Your task to perform on an android device: Go to privacy settings Image 0: 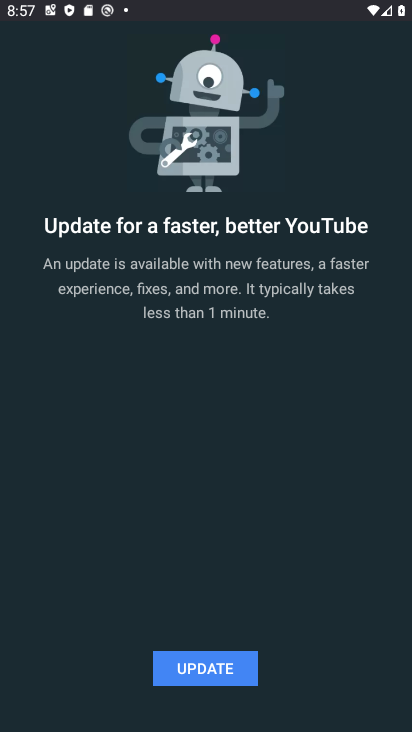
Step 0: press back button
Your task to perform on an android device: Go to privacy settings Image 1: 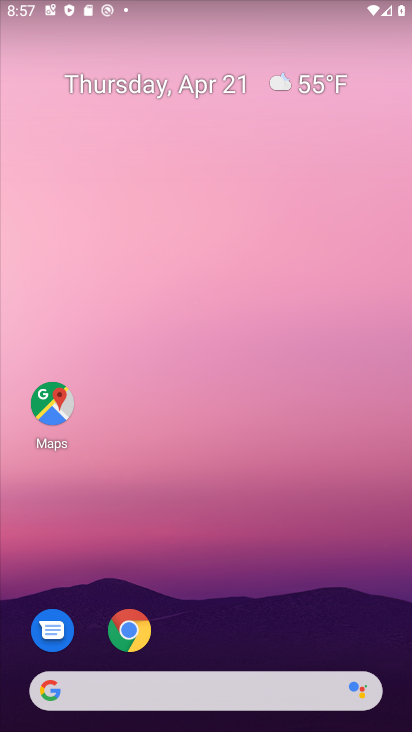
Step 1: click (133, 632)
Your task to perform on an android device: Go to privacy settings Image 2: 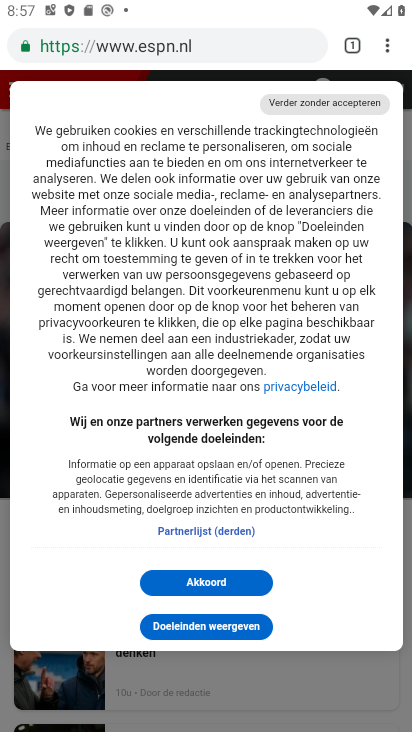
Step 2: click (390, 47)
Your task to perform on an android device: Go to privacy settings Image 3: 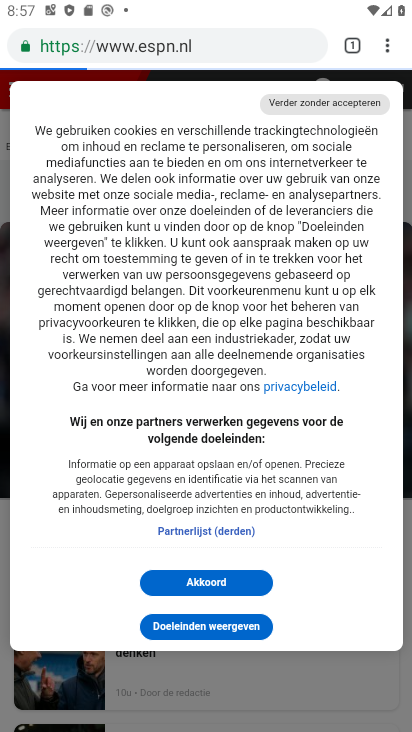
Step 3: drag from (390, 47) to (307, 594)
Your task to perform on an android device: Go to privacy settings Image 4: 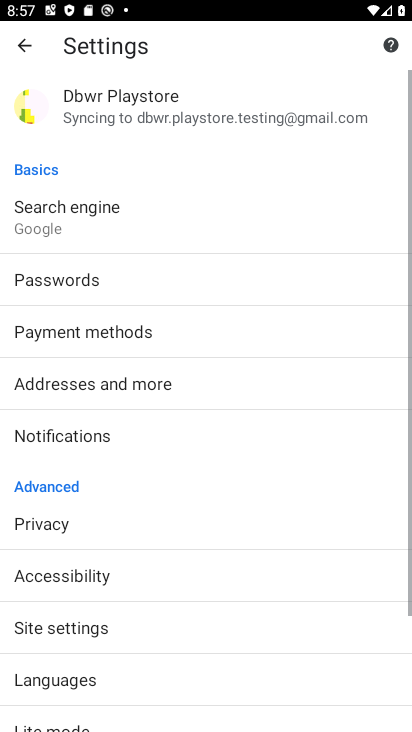
Step 4: drag from (95, 635) to (125, 370)
Your task to perform on an android device: Go to privacy settings Image 5: 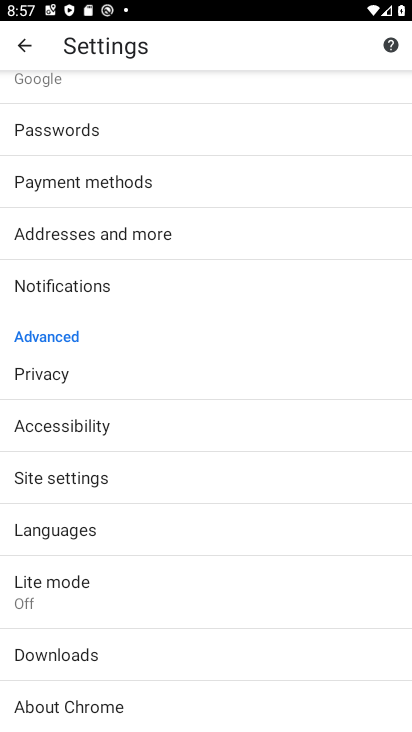
Step 5: click (85, 367)
Your task to perform on an android device: Go to privacy settings Image 6: 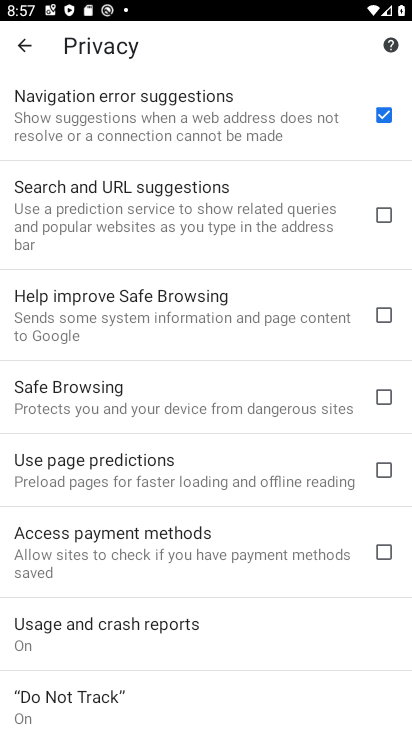
Step 6: task complete